Your task to perform on an android device: turn on sleep mode Image 0: 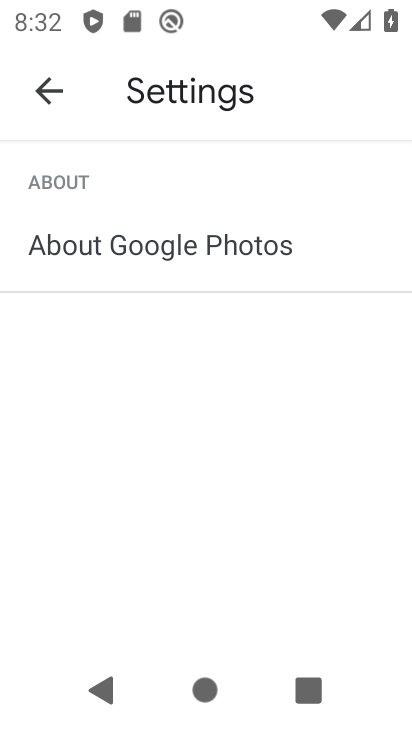
Step 0: press home button
Your task to perform on an android device: turn on sleep mode Image 1: 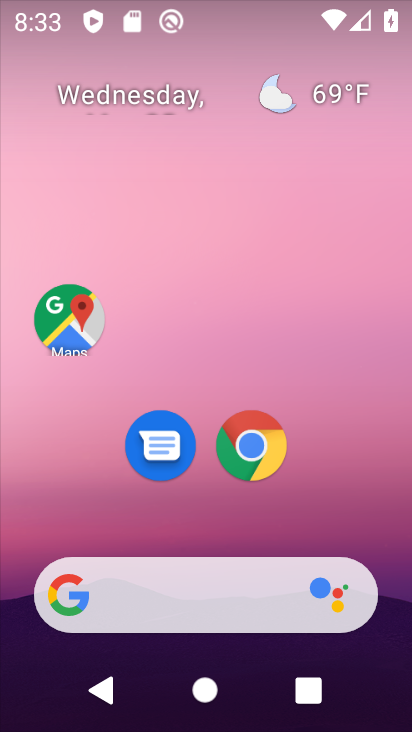
Step 1: drag from (320, 509) to (346, 65)
Your task to perform on an android device: turn on sleep mode Image 2: 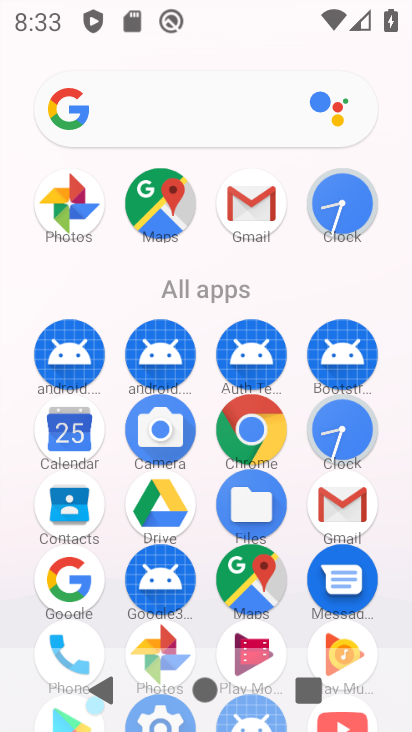
Step 2: drag from (292, 286) to (304, 64)
Your task to perform on an android device: turn on sleep mode Image 3: 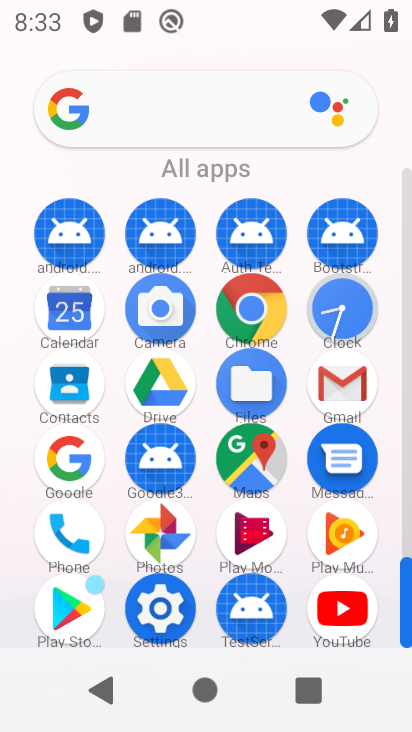
Step 3: click (154, 621)
Your task to perform on an android device: turn on sleep mode Image 4: 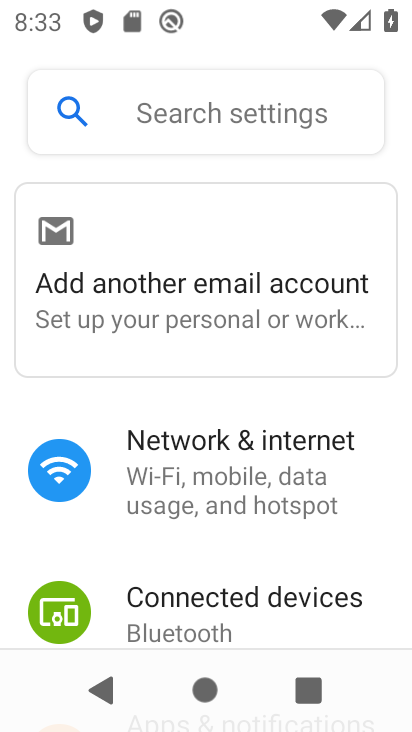
Step 4: drag from (305, 610) to (313, 239)
Your task to perform on an android device: turn on sleep mode Image 5: 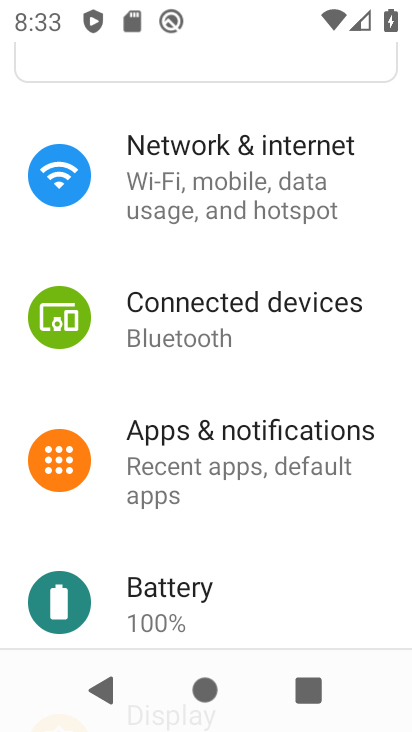
Step 5: drag from (308, 547) to (324, 135)
Your task to perform on an android device: turn on sleep mode Image 6: 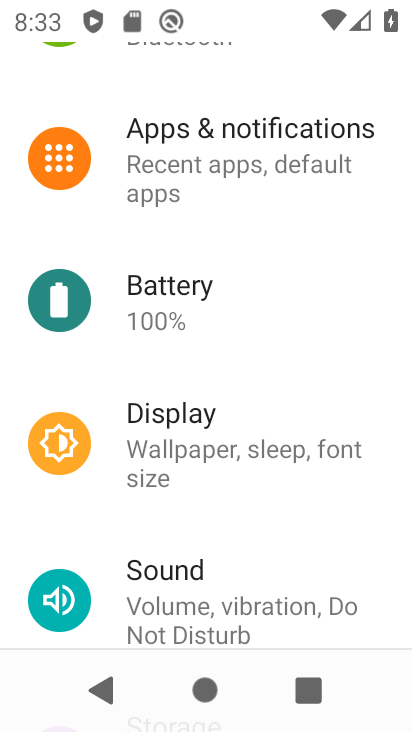
Step 6: click (166, 443)
Your task to perform on an android device: turn on sleep mode Image 7: 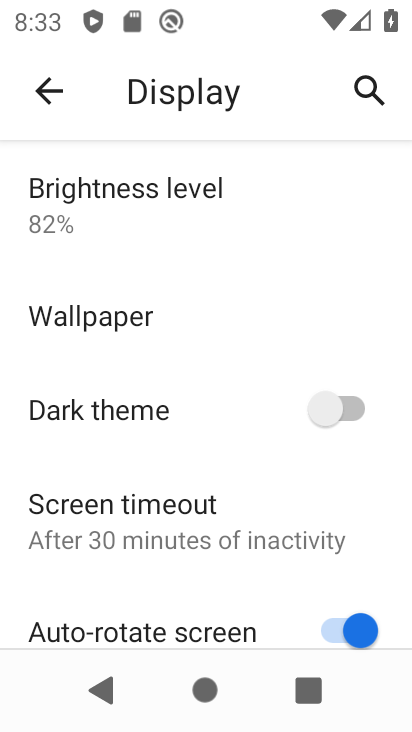
Step 7: task complete